Your task to perform on an android device: When is my next meeting? Image 0: 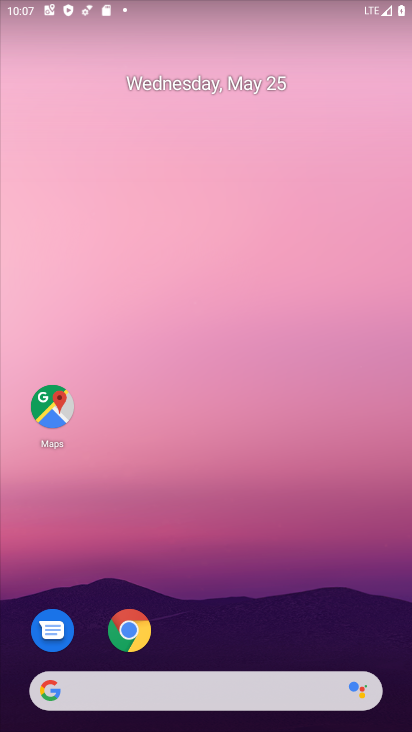
Step 0: drag from (254, 515) to (267, 83)
Your task to perform on an android device: When is my next meeting? Image 1: 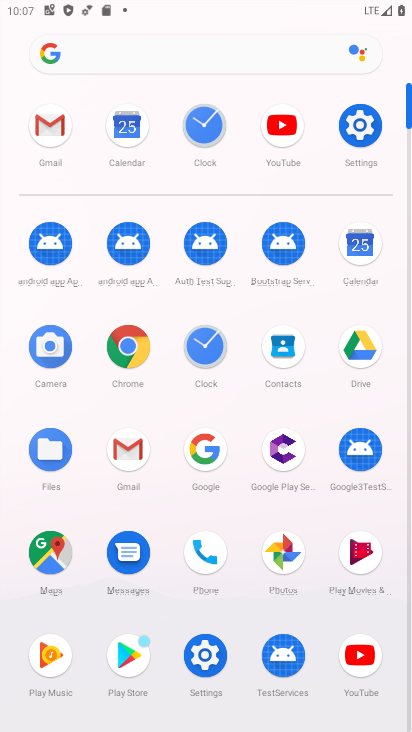
Step 1: click (357, 245)
Your task to perform on an android device: When is my next meeting? Image 2: 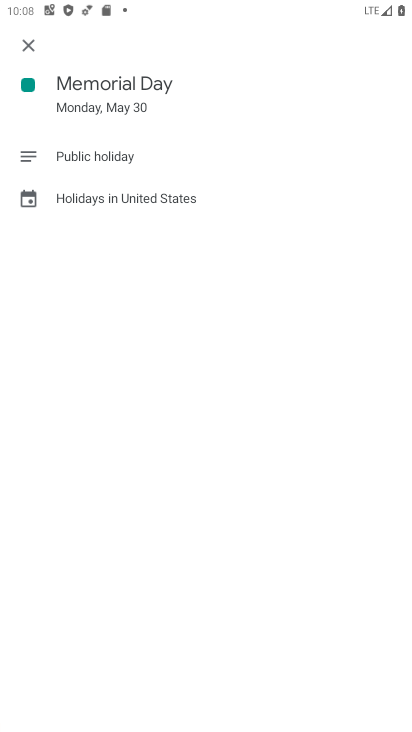
Step 2: click (27, 39)
Your task to perform on an android device: When is my next meeting? Image 3: 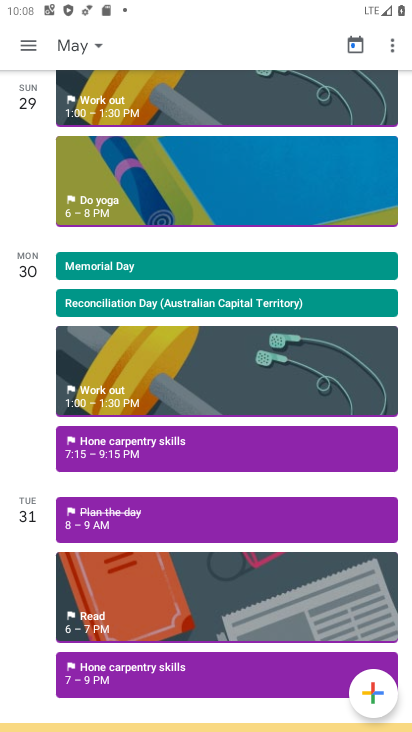
Step 3: task complete